Your task to perform on an android device: turn smart compose on in the gmail app Image 0: 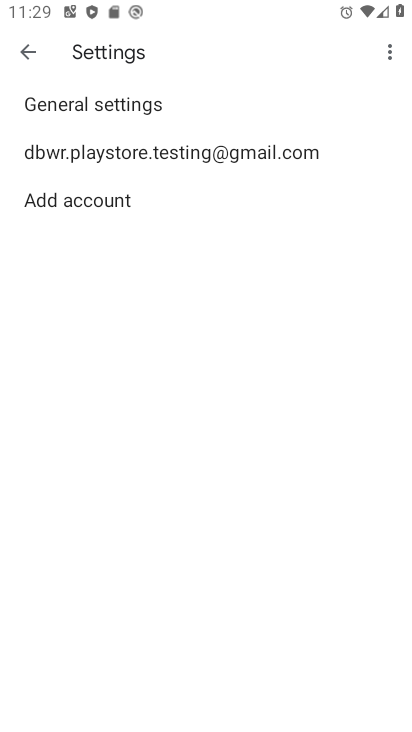
Step 0: press home button
Your task to perform on an android device: turn smart compose on in the gmail app Image 1: 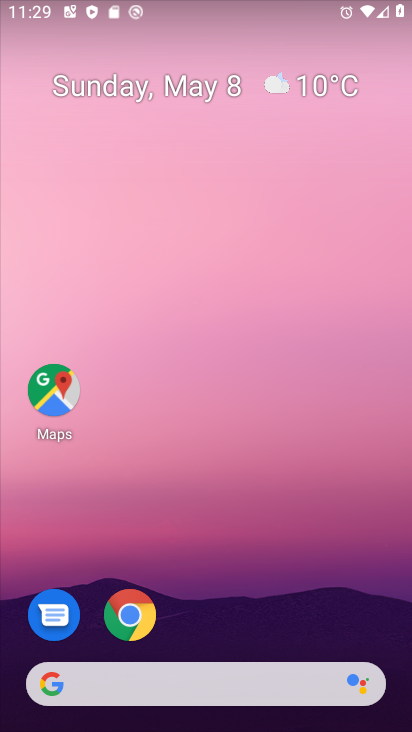
Step 1: drag from (253, 687) to (399, 252)
Your task to perform on an android device: turn smart compose on in the gmail app Image 2: 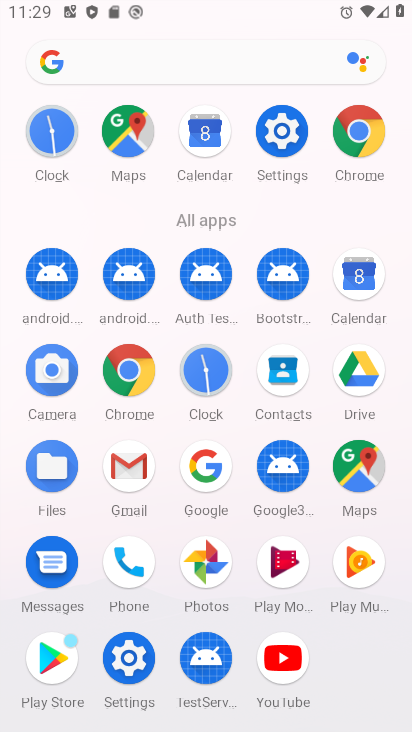
Step 2: click (111, 473)
Your task to perform on an android device: turn smart compose on in the gmail app Image 3: 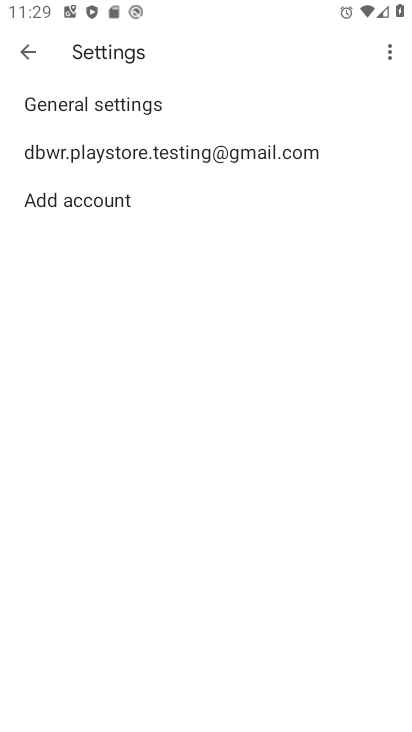
Step 3: click (178, 158)
Your task to perform on an android device: turn smart compose on in the gmail app Image 4: 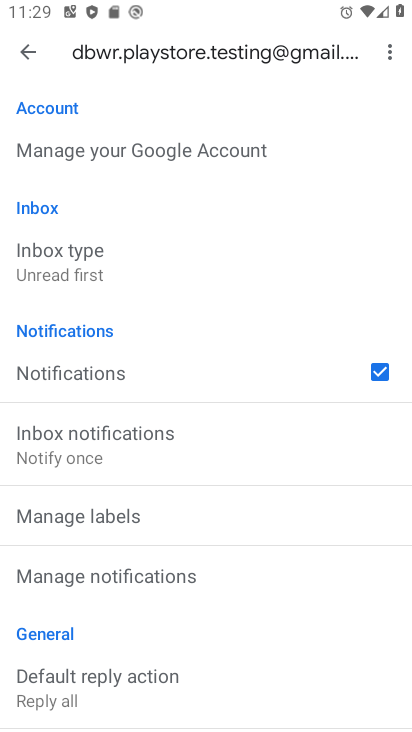
Step 4: drag from (121, 631) to (153, 318)
Your task to perform on an android device: turn smart compose on in the gmail app Image 5: 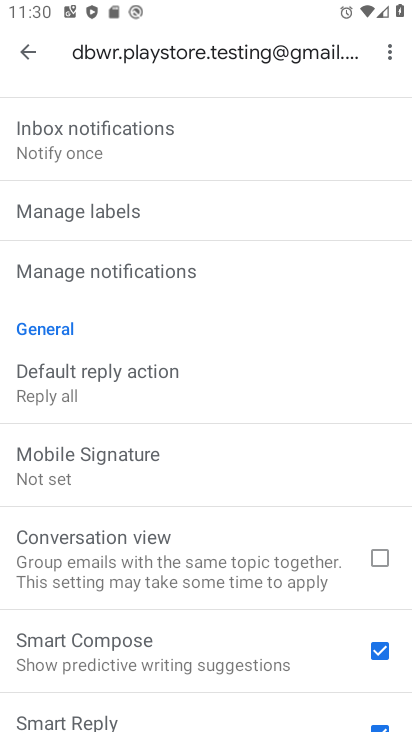
Step 5: drag from (201, 643) to (214, 371)
Your task to perform on an android device: turn smart compose on in the gmail app Image 6: 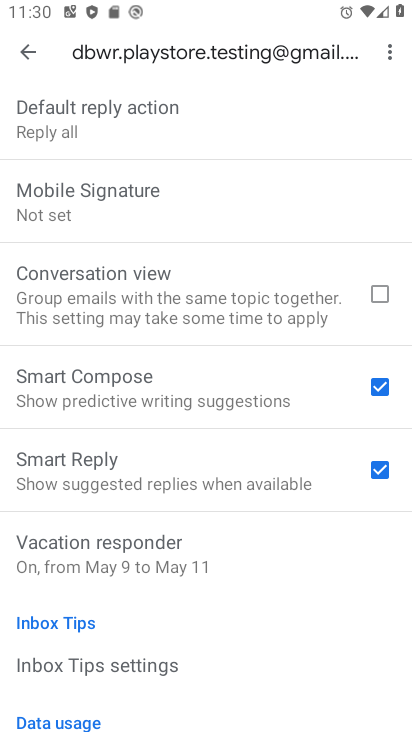
Step 6: click (281, 383)
Your task to perform on an android device: turn smart compose on in the gmail app Image 7: 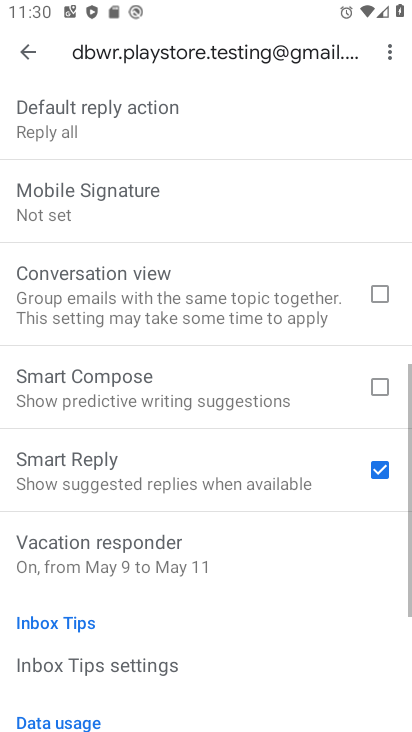
Step 7: click (281, 383)
Your task to perform on an android device: turn smart compose on in the gmail app Image 8: 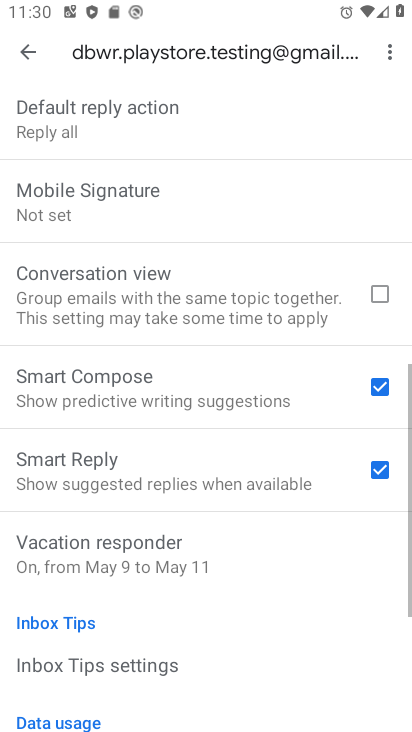
Step 8: task complete